Your task to perform on an android device: What's on my calendar today? Image 0: 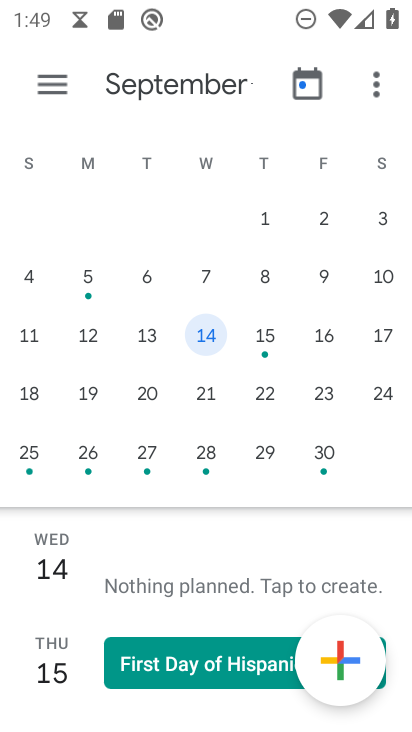
Step 0: press home button
Your task to perform on an android device: What's on my calendar today? Image 1: 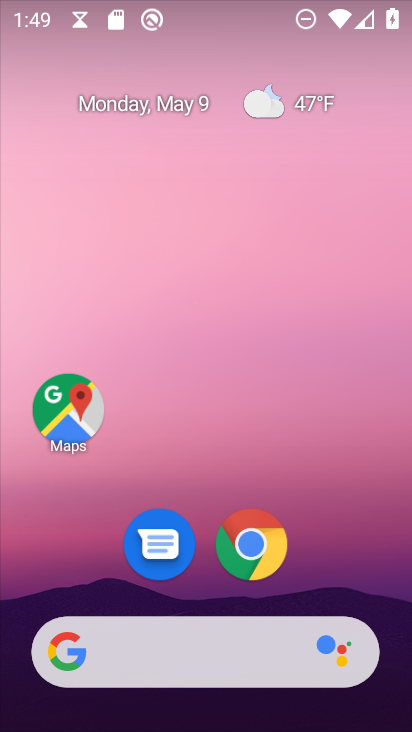
Step 1: drag from (382, 549) to (412, 203)
Your task to perform on an android device: What's on my calendar today? Image 2: 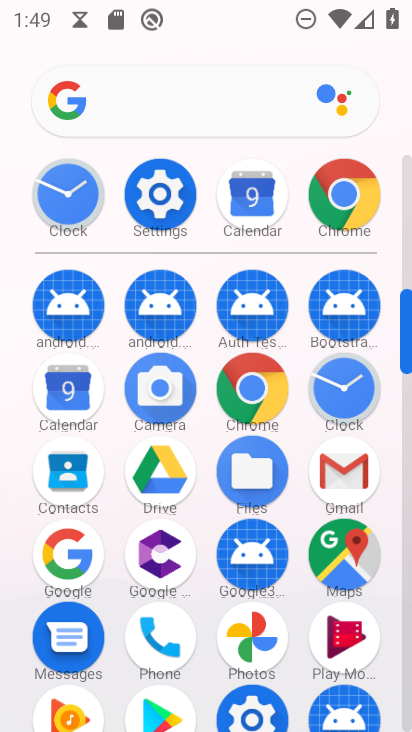
Step 2: click (56, 396)
Your task to perform on an android device: What's on my calendar today? Image 3: 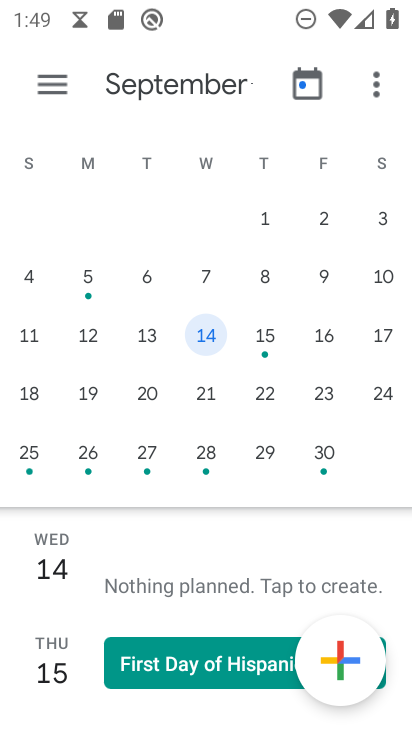
Step 3: task complete